Your task to perform on an android device: turn off smart reply in the gmail app Image 0: 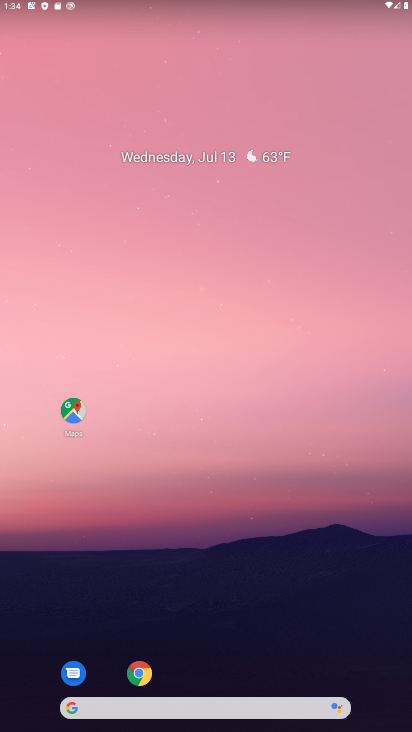
Step 0: drag from (238, 569) to (240, 198)
Your task to perform on an android device: turn off smart reply in the gmail app Image 1: 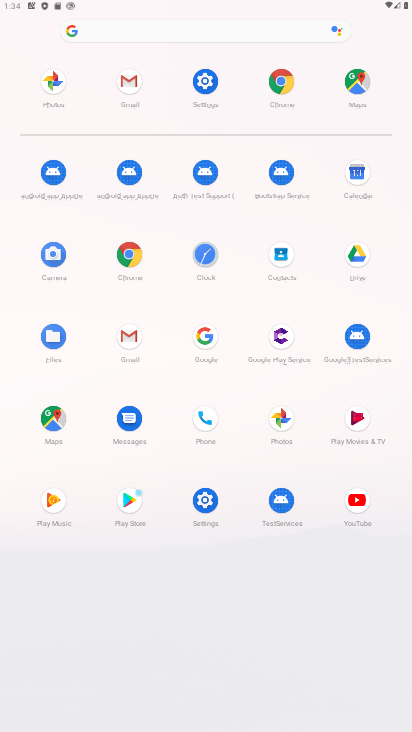
Step 1: click (122, 333)
Your task to perform on an android device: turn off smart reply in the gmail app Image 2: 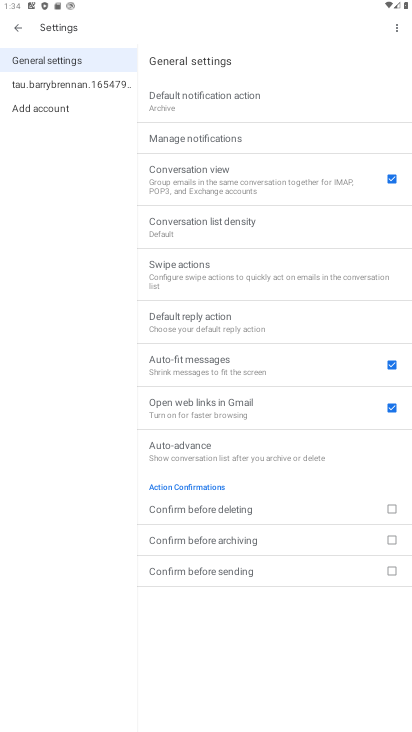
Step 2: click (15, 16)
Your task to perform on an android device: turn off smart reply in the gmail app Image 3: 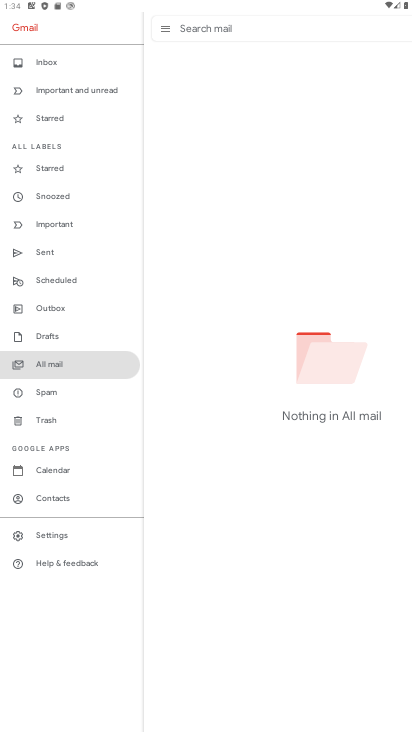
Step 3: click (32, 531)
Your task to perform on an android device: turn off smart reply in the gmail app Image 4: 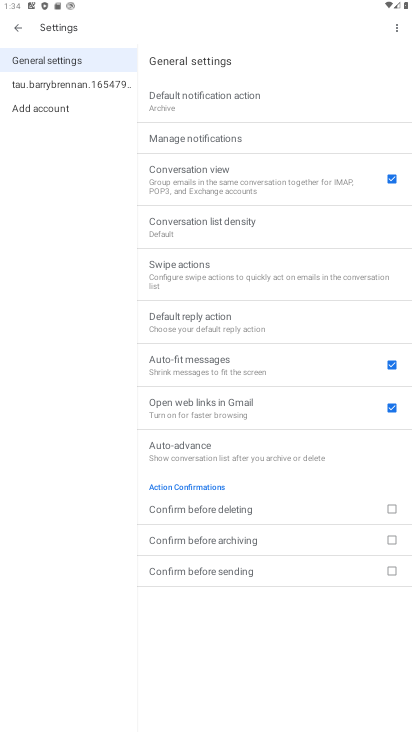
Step 4: click (59, 83)
Your task to perform on an android device: turn off smart reply in the gmail app Image 5: 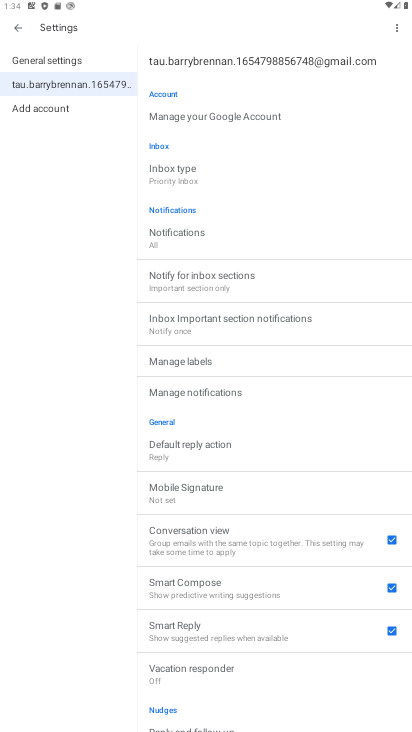
Step 5: click (400, 627)
Your task to perform on an android device: turn off smart reply in the gmail app Image 6: 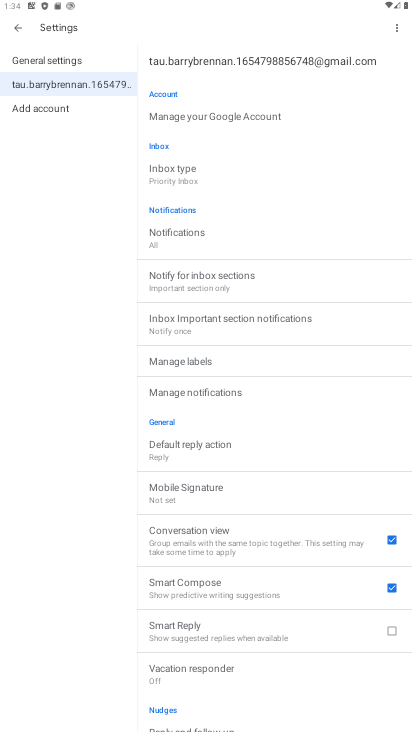
Step 6: task complete